Your task to perform on an android device: add a label to a message in the gmail app Image 0: 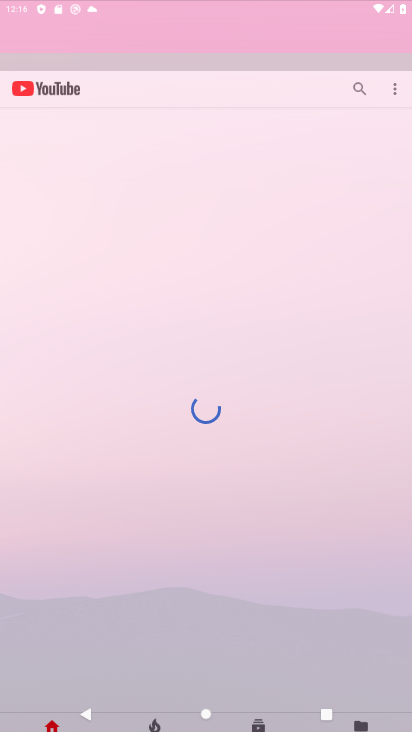
Step 0: press home button
Your task to perform on an android device: add a label to a message in the gmail app Image 1: 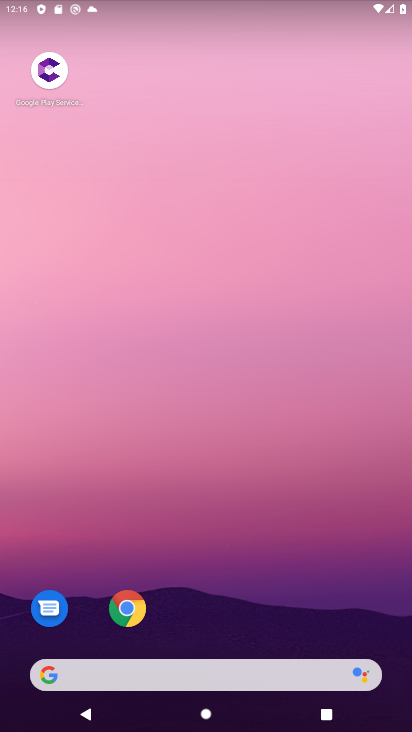
Step 1: drag from (194, 671) to (292, 171)
Your task to perform on an android device: add a label to a message in the gmail app Image 2: 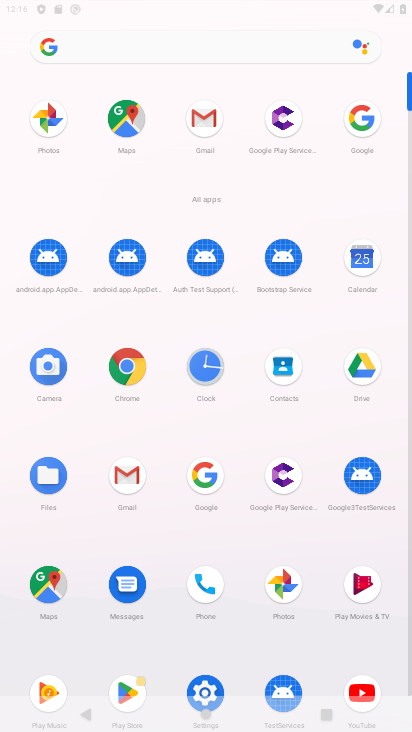
Step 2: click (204, 114)
Your task to perform on an android device: add a label to a message in the gmail app Image 3: 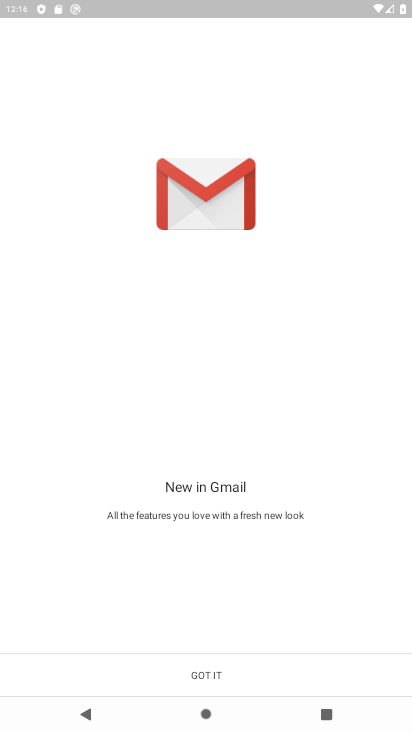
Step 3: click (204, 671)
Your task to perform on an android device: add a label to a message in the gmail app Image 4: 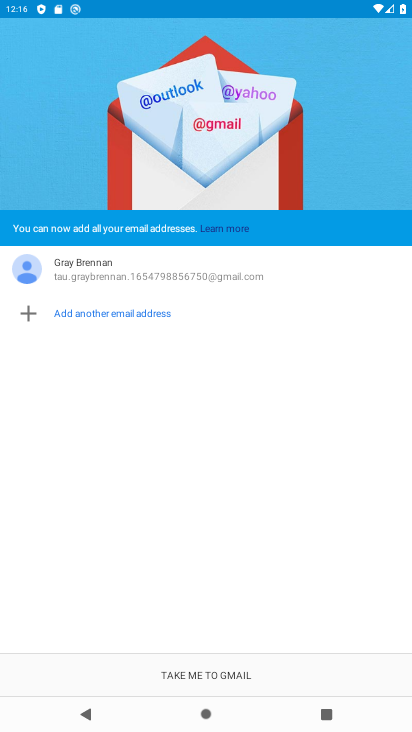
Step 4: click (205, 673)
Your task to perform on an android device: add a label to a message in the gmail app Image 5: 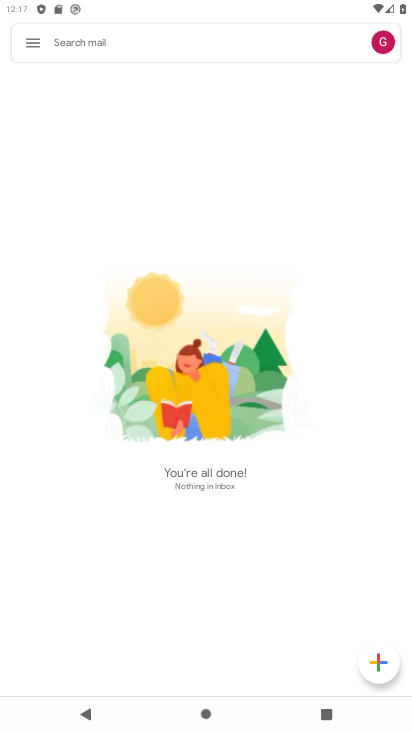
Step 5: click (29, 45)
Your task to perform on an android device: add a label to a message in the gmail app Image 6: 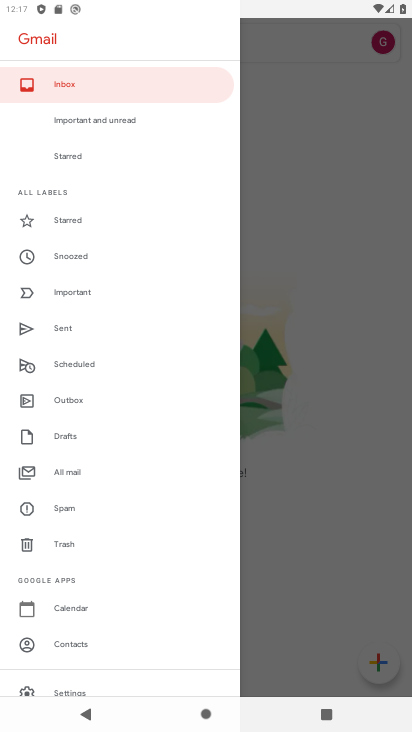
Step 6: click (71, 128)
Your task to perform on an android device: add a label to a message in the gmail app Image 7: 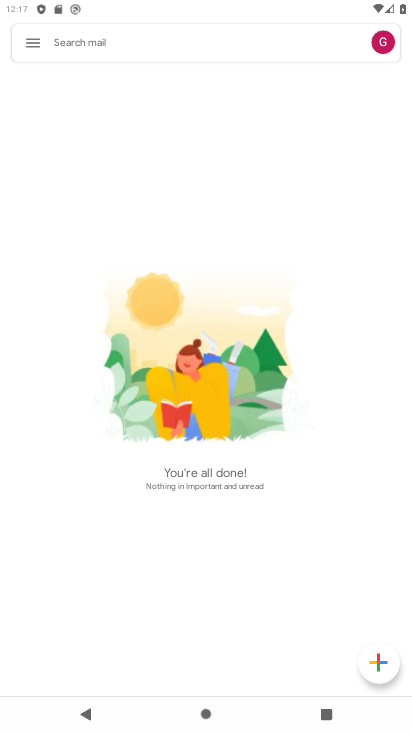
Step 7: click (39, 41)
Your task to perform on an android device: add a label to a message in the gmail app Image 8: 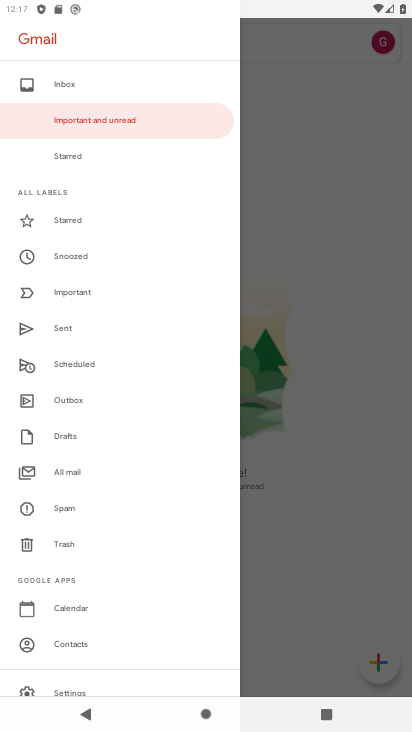
Step 8: click (55, 155)
Your task to perform on an android device: add a label to a message in the gmail app Image 9: 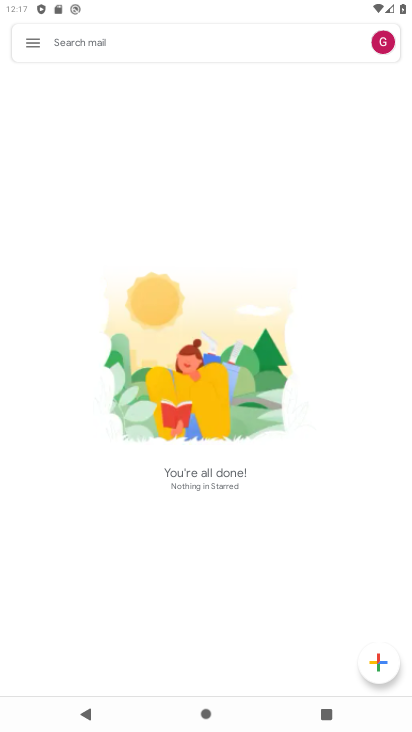
Step 9: click (32, 43)
Your task to perform on an android device: add a label to a message in the gmail app Image 10: 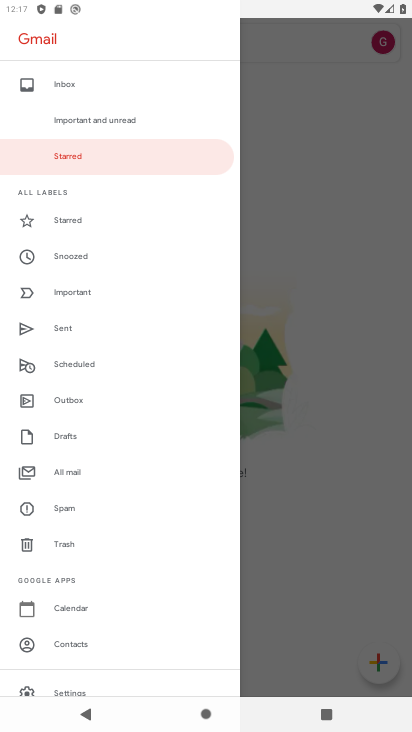
Step 10: click (83, 225)
Your task to perform on an android device: add a label to a message in the gmail app Image 11: 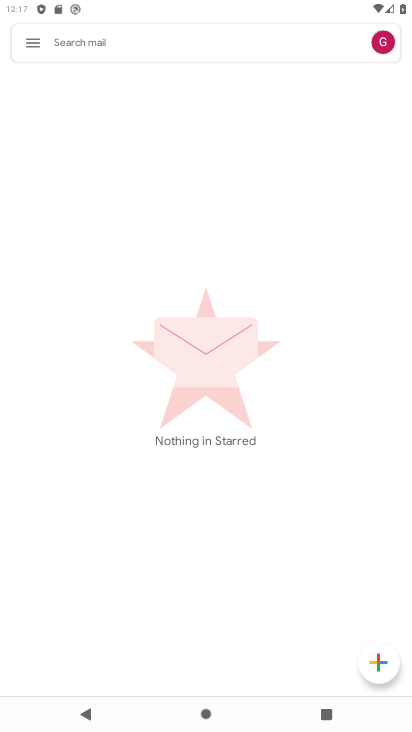
Step 11: click (33, 46)
Your task to perform on an android device: add a label to a message in the gmail app Image 12: 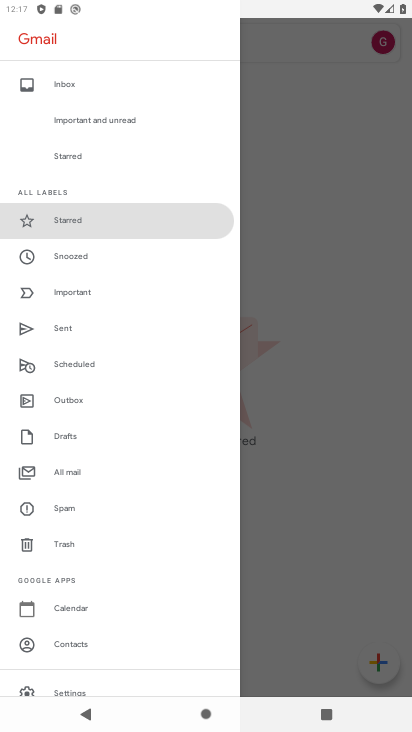
Step 12: click (70, 262)
Your task to perform on an android device: add a label to a message in the gmail app Image 13: 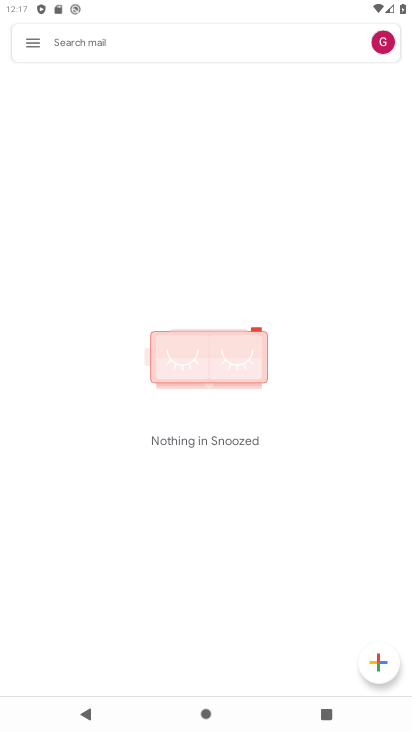
Step 13: click (30, 43)
Your task to perform on an android device: add a label to a message in the gmail app Image 14: 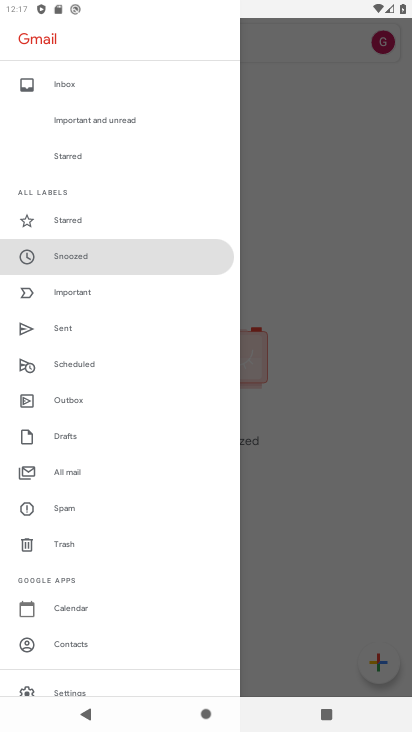
Step 14: click (69, 290)
Your task to perform on an android device: add a label to a message in the gmail app Image 15: 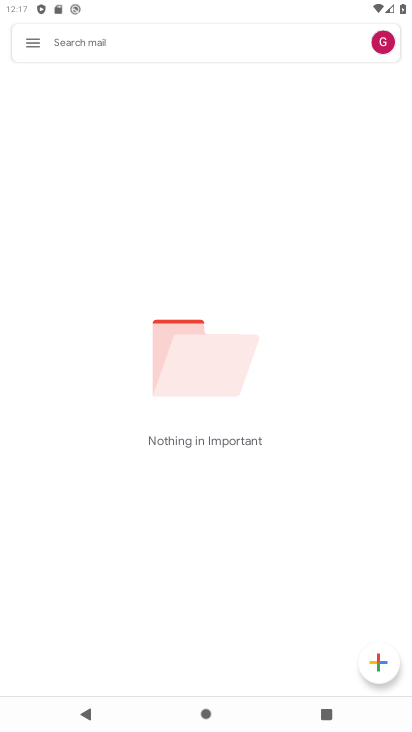
Step 15: task complete